Your task to perform on an android device: Go to Yahoo.com Image 0: 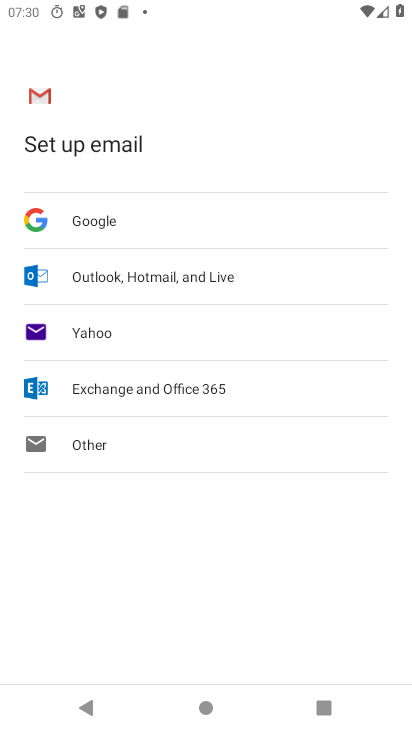
Step 0: press home button
Your task to perform on an android device: Go to Yahoo.com Image 1: 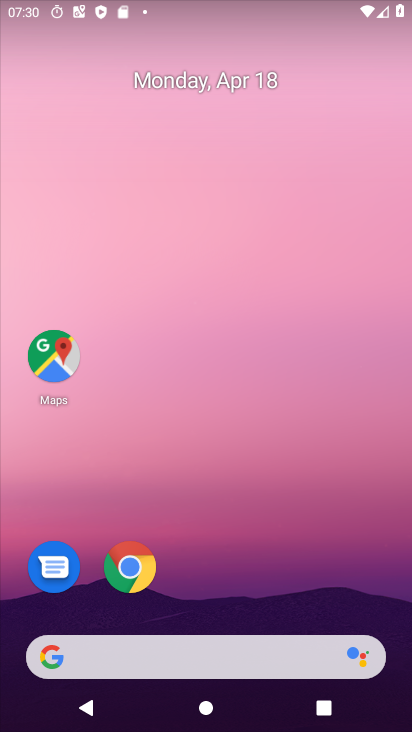
Step 1: click (127, 567)
Your task to perform on an android device: Go to Yahoo.com Image 2: 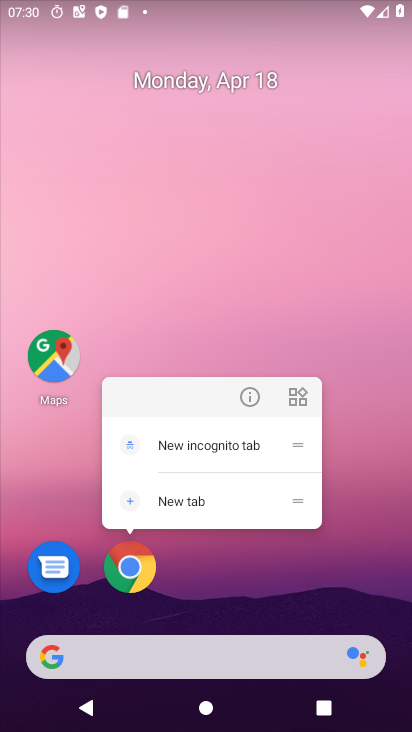
Step 2: click (168, 674)
Your task to perform on an android device: Go to Yahoo.com Image 3: 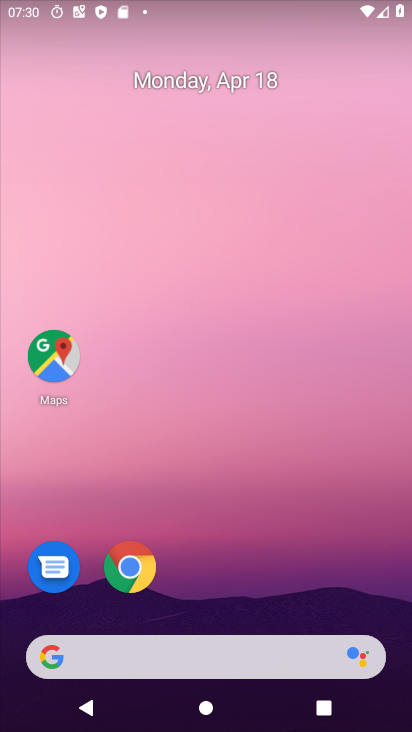
Step 3: click (142, 570)
Your task to perform on an android device: Go to Yahoo.com Image 4: 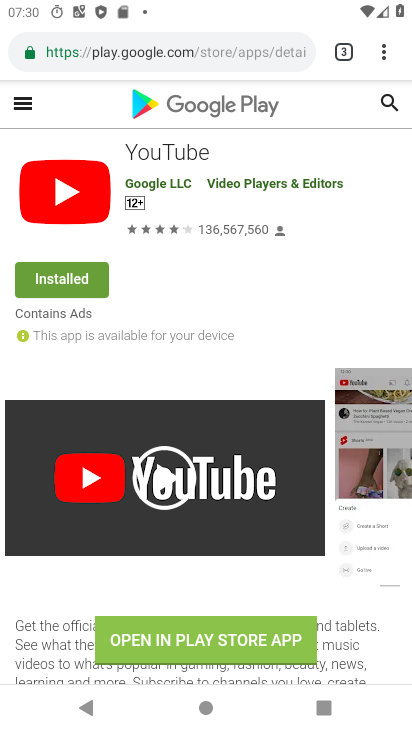
Step 4: drag from (382, 54) to (330, 100)
Your task to perform on an android device: Go to Yahoo.com Image 5: 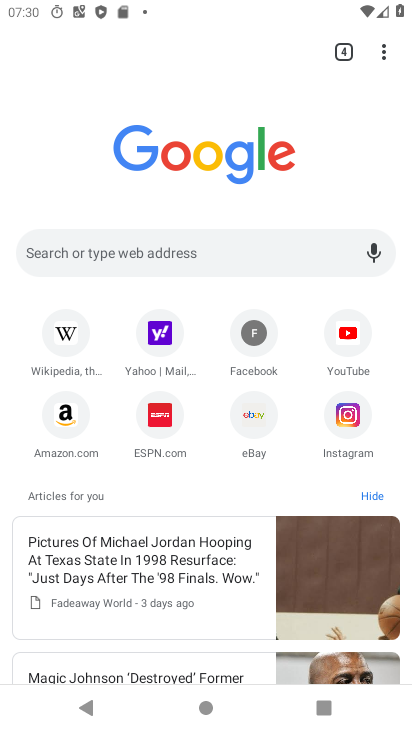
Step 5: click (158, 338)
Your task to perform on an android device: Go to Yahoo.com Image 6: 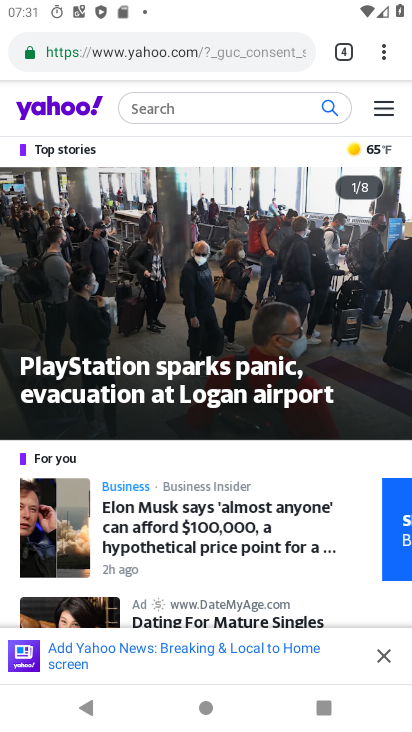
Step 6: task complete